Your task to perform on an android device: change the clock display to analog Image 0: 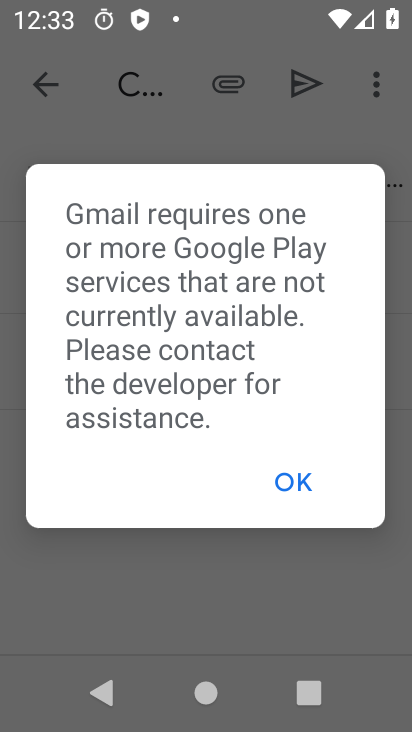
Step 0: press home button
Your task to perform on an android device: change the clock display to analog Image 1: 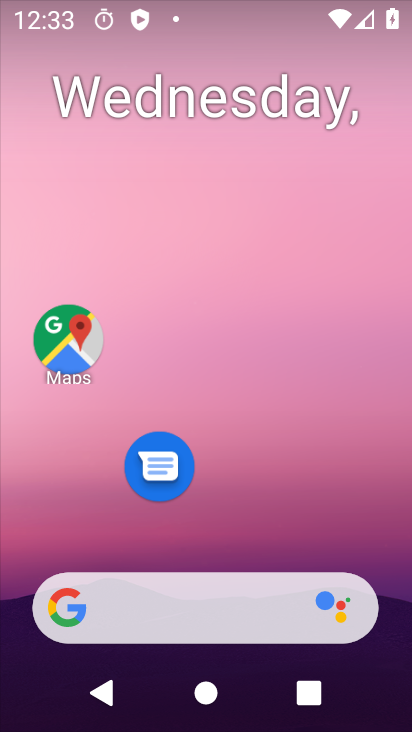
Step 1: drag from (317, 491) to (300, 110)
Your task to perform on an android device: change the clock display to analog Image 2: 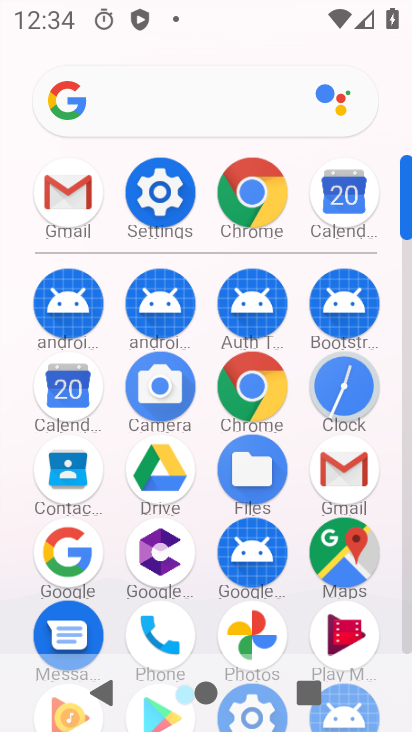
Step 2: click (349, 406)
Your task to perform on an android device: change the clock display to analog Image 3: 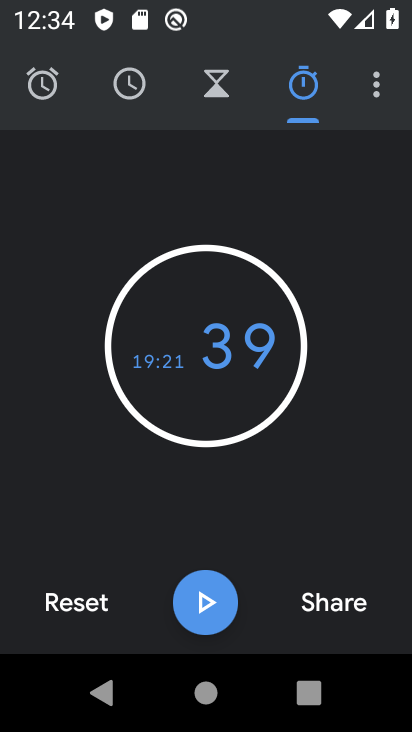
Step 3: click (383, 84)
Your task to perform on an android device: change the clock display to analog Image 4: 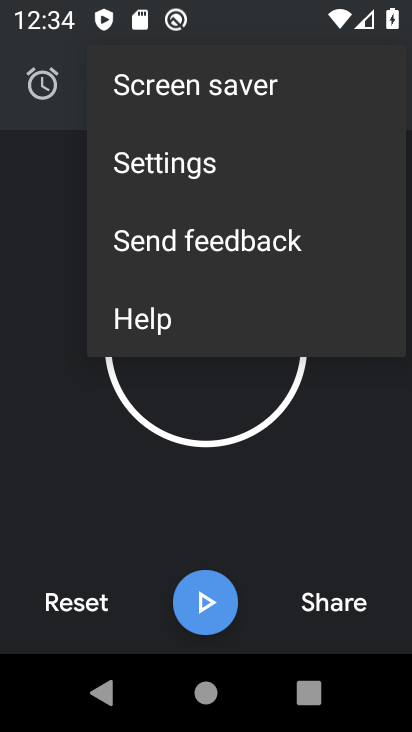
Step 4: click (259, 149)
Your task to perform on an android device: change the clock display to analog Image 5: 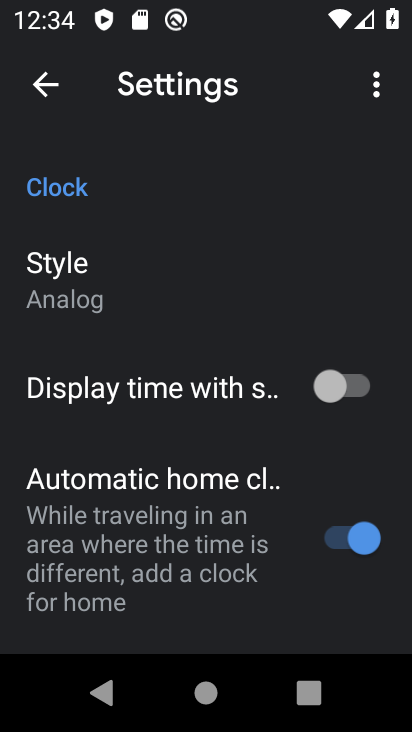
Step 5: task complete